Your task to perform on an android device: visit the assistant section in the google photos Image 0: 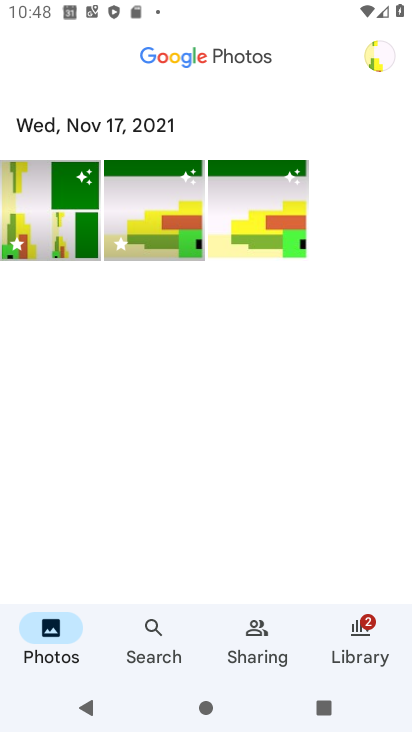
Step 0: task impossible